Your task to perform on an android device: open a new tab in the chrome app Image 0: 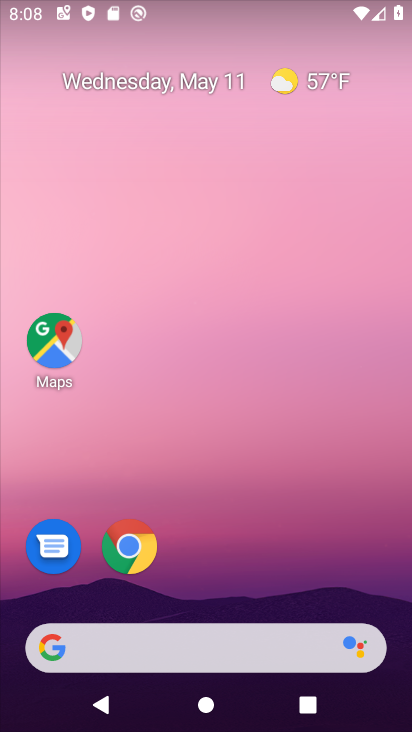
Step 0: click (151, 571)
Your task to perform on an android device: open a new tab in the chrome app Image 1: 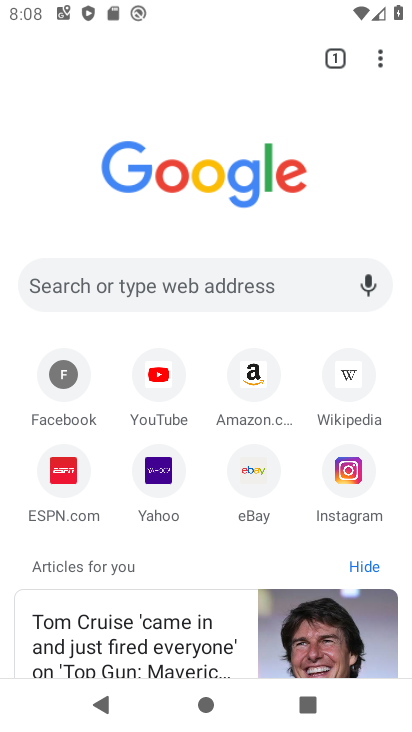
Step 1: click (323, 60)
Your task to perform on an android device: open a new tab in the chrome app Image 2: 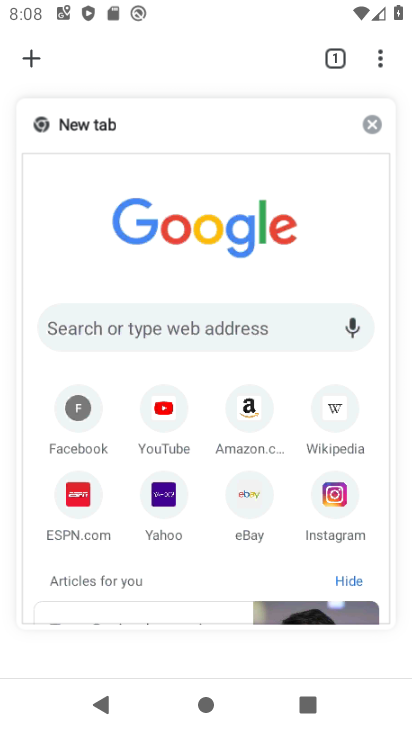
Step 2: click (17, 54)
Your task to perform on an android device: open a new tab in the chrome app Image 3: 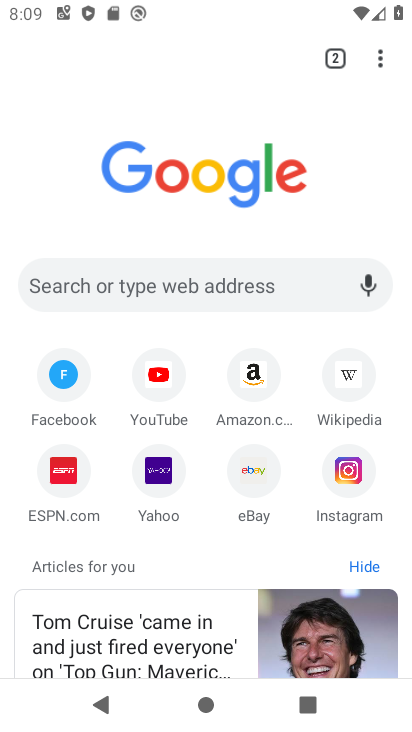
Step 3: task complete